Your task to perform on an android device: clear history in the chrome app Image 0: 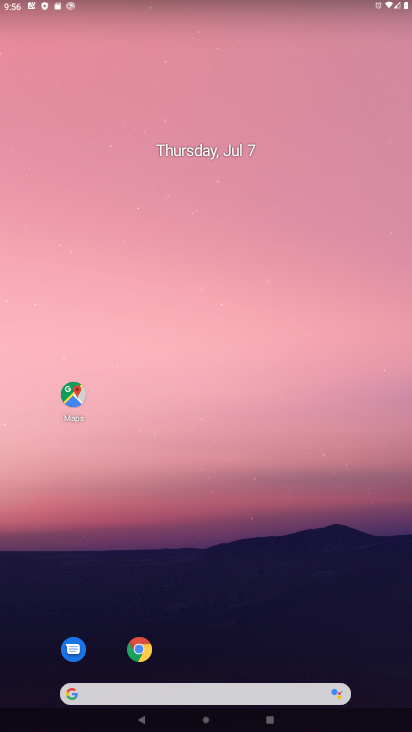
Step 0: drag from (233, 721) to (202, 134)
Your task to perform on an android device: clear history in the chrome app Image 1: 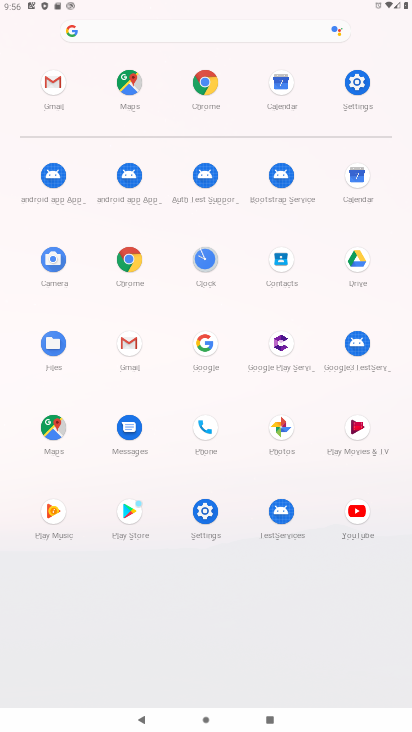
Step 1: click (205, 81)
Your task to perform on an android device: clear history in the chrome app Image 2: 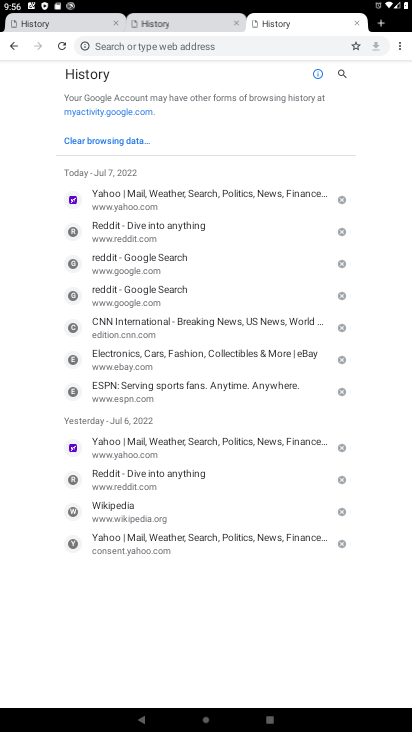
Step 2: click (124, 138)
Your task to perform on an android device: clear history in the chrome app Image 3: 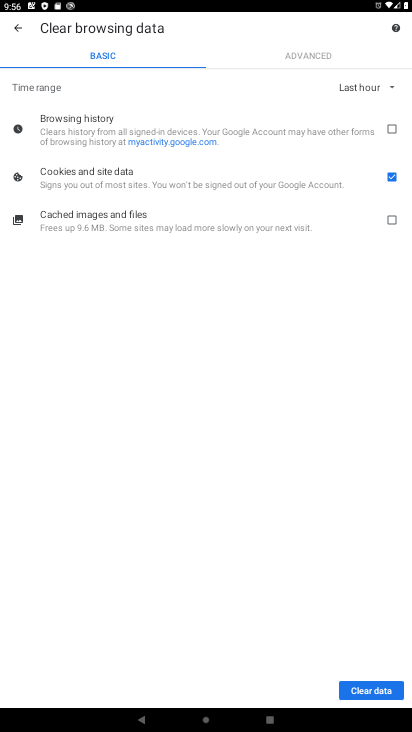
Step 3: click (391, 127)
Your task to perform on an android device: clear history in the chrome app Image 4: 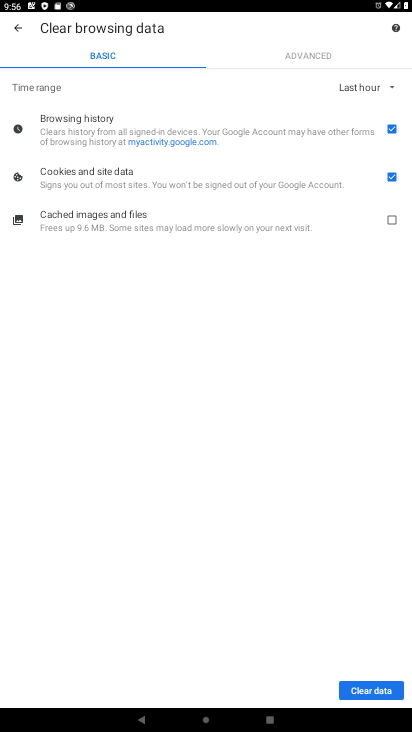
Step 4: click (392, 176)
Your task to perform on an android device: clear history in the chrome app Image 5: 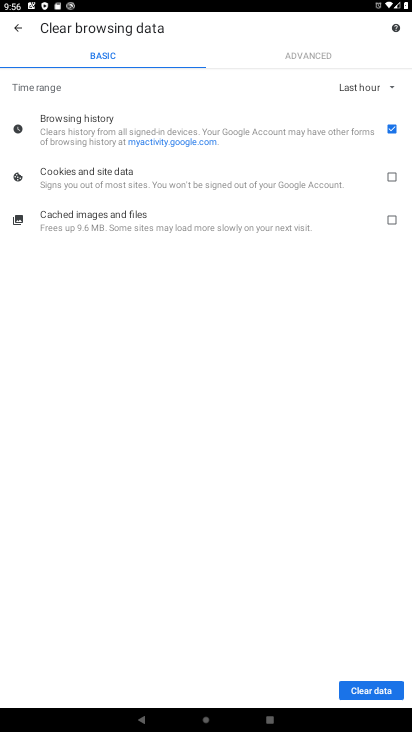
Step 5: click (365, 692)
Your task to perform on an android device: clear history in the chrome app Image 6: 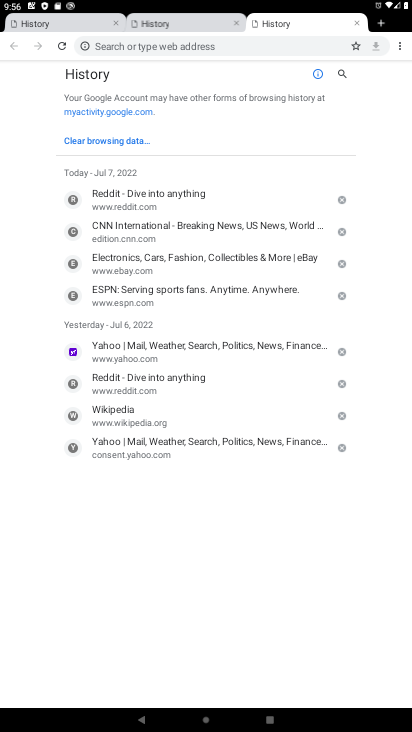
Step 6: click (122, 140)
Your task to perform on an android device: clear history in the chrome app Image 7: 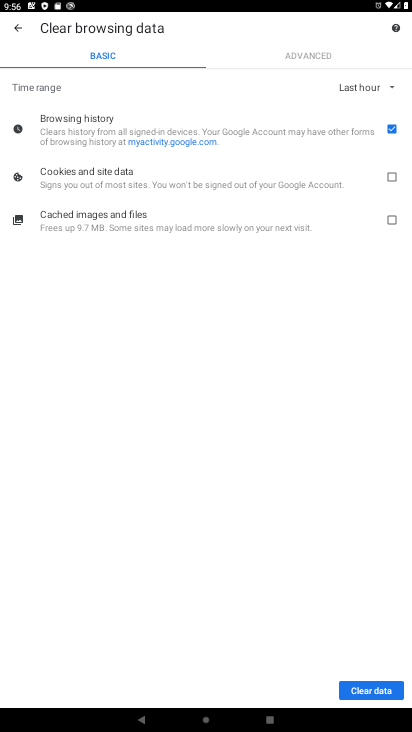
Step 7: click (377, 689)
Your task to perform on an android device: clear history in the chrome app Image 8: 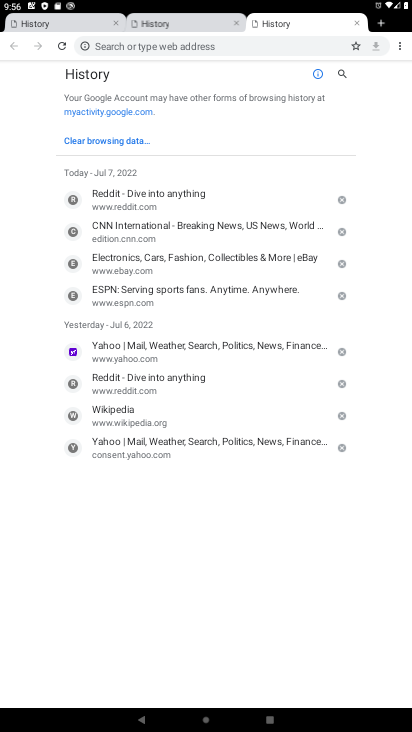
Step 8: task complete